Your task to perform on an android device: What is the recent news? Image 0: 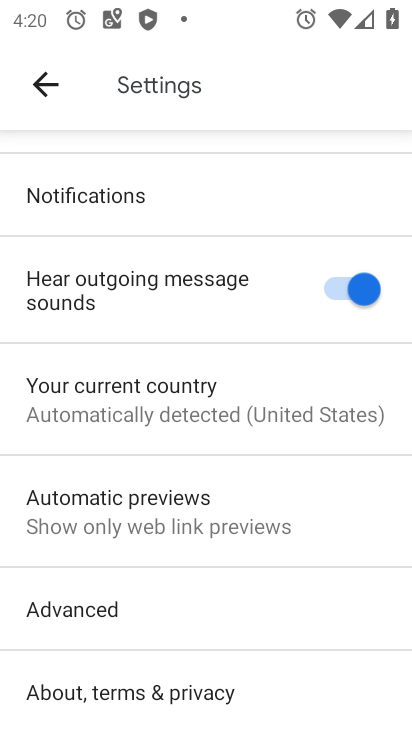
Step 0: press home button
Your task to perform on an android device: What is the recent news? Image 1: 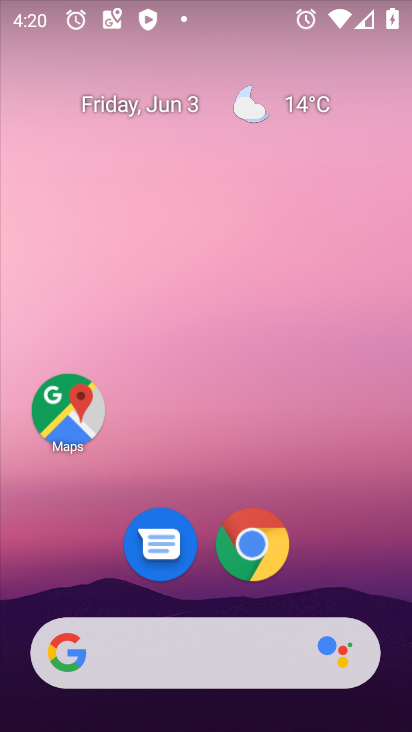
Step 1: task complete